Your task to perform on an android device: delete a single message in the gmail app Image 0: 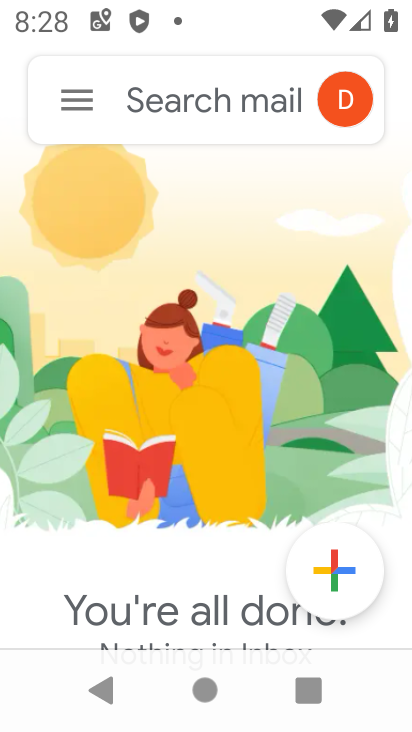
Step 0: press home button
Your task to perform on an android device: delete a single message in the gmail app Image 1: 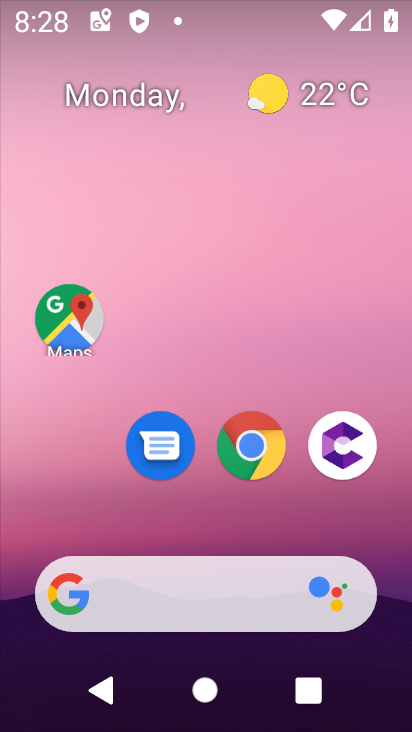
Step 1: drag from (232, 342) to (189, 7)
Your task to perform on an android device: delete a single message in the gmail app Image 2: 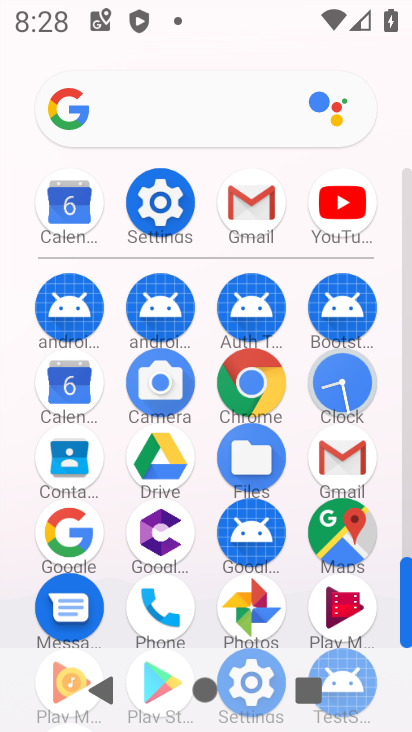
Step 2: click (266, 192)
Your task to perform on an android device: delete a single message in the gmail app Image 3: 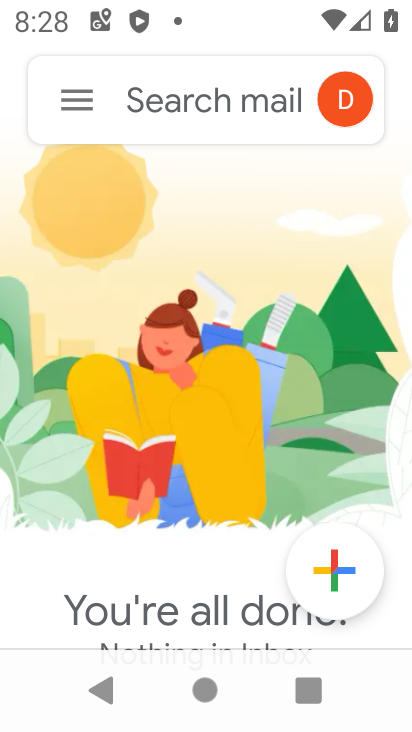
Step 3: click (75, 98)
Your task to perform on an android device: delete a single message in the gmail app Image 4: 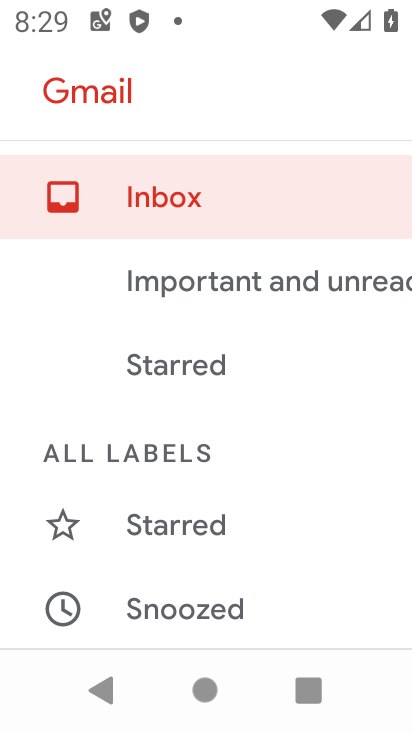
Step 4: drag from (26, 562) to (56, 0)
Your task to perform on an android device: delete a single message in the gmail app Image 5: 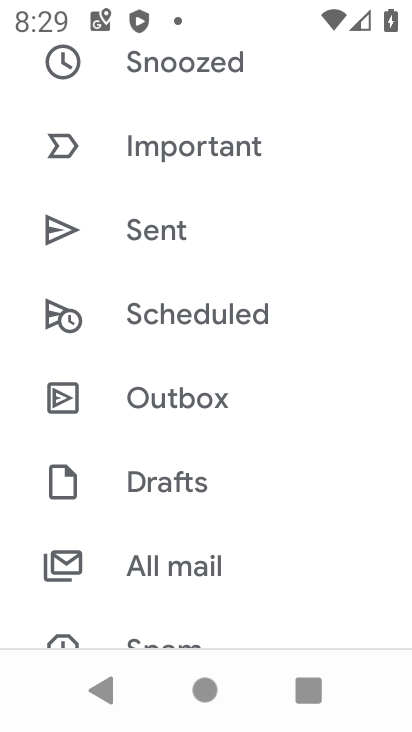
Step 5: click (181, 556)
Your task to perform on an android device: delete a single message in the gmail app Image 6: 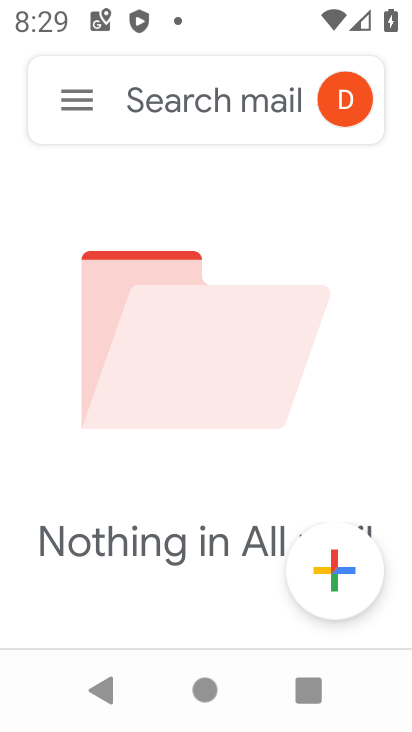
Step 6: task complete